Your task to perform on an android device: change alarm snooze length Image 0: 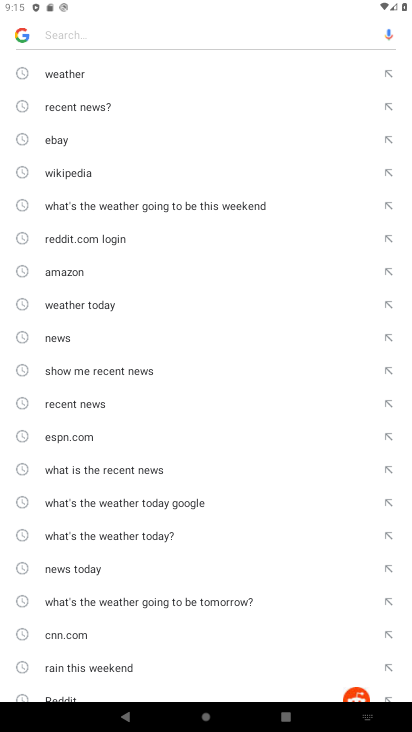
Step 0: task complete